Your task to perform on an android device: open wifi settings Image 0: 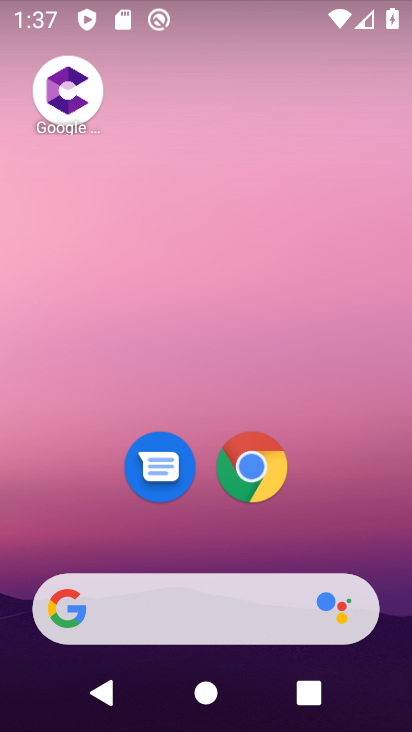
Step 0: click (326, 148)
Your task to perform on an android device: open wifi settings Image 1: 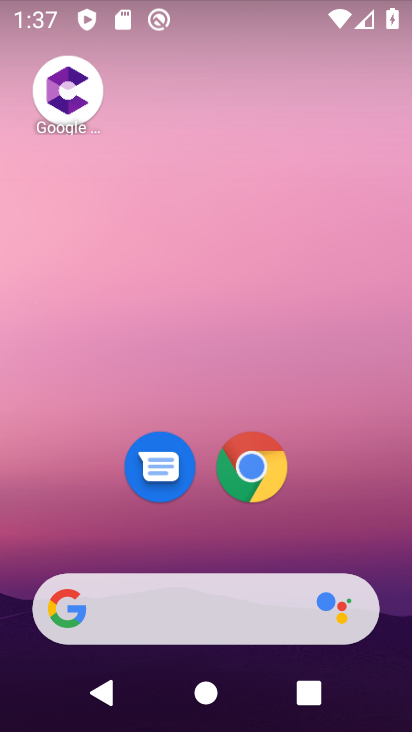
Step 1: drag from (258, 562) to (251, 106)
Your task to perform on an android device: open wifi settings Image 2: 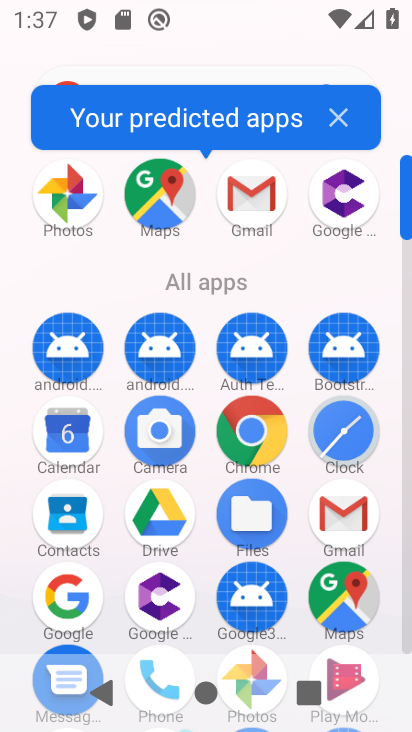
Step 2: drag from (198, 493) to (231, 178)
Your task to perform on an android device: open wifi settings Image 3: 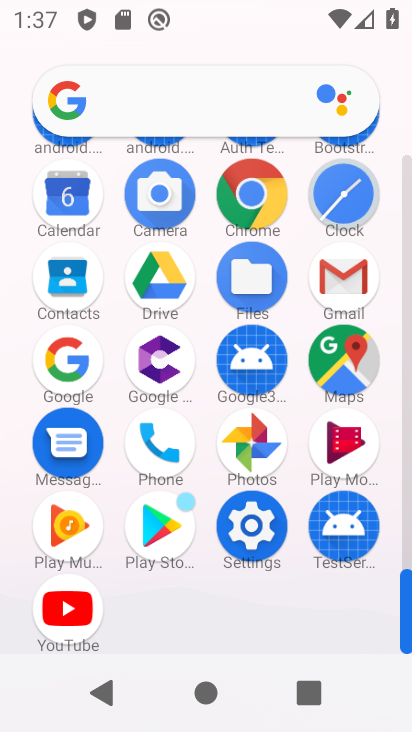
Step 3: drag from (259, 539) to (96, 223)
Your task to perform on an android device: open wifi settings Image 4: 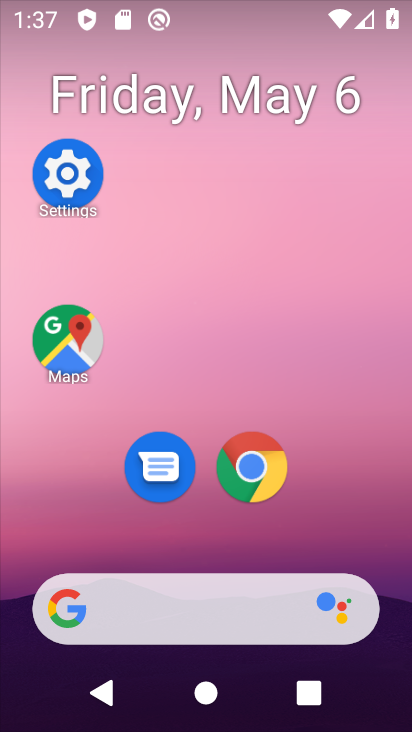
Step 4: click (77, 187)
Your task to perform on an android device: open wifi settings Image 5: 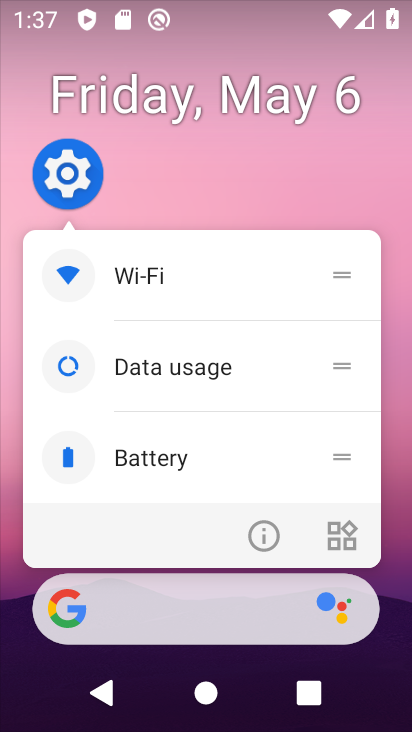
Step 5: click (173, 277)
Your task to perform on an android device: open wifi settings Image 6: 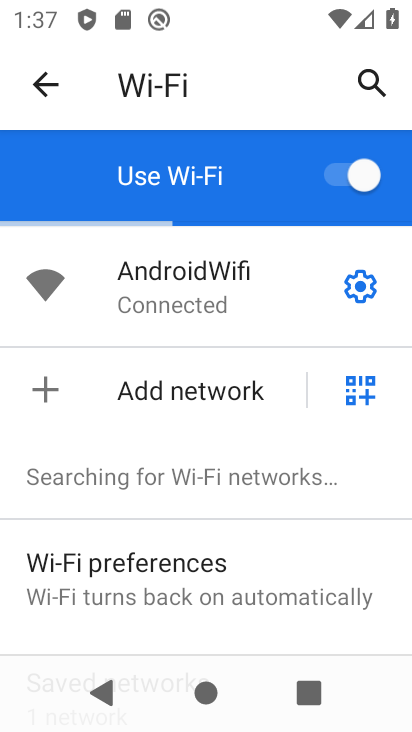
Step 6: click (356, 282)
Your task to perform on an android device: open wifi settings Image 7: 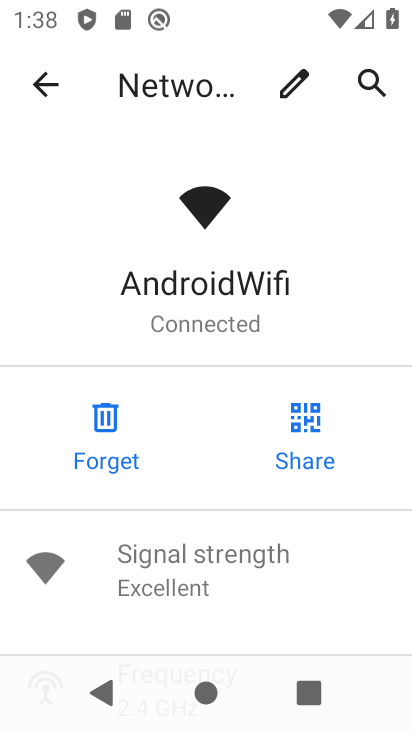
Step 7: task complete